Your task to perform on an android device: Toggle the flashlight Image 0: 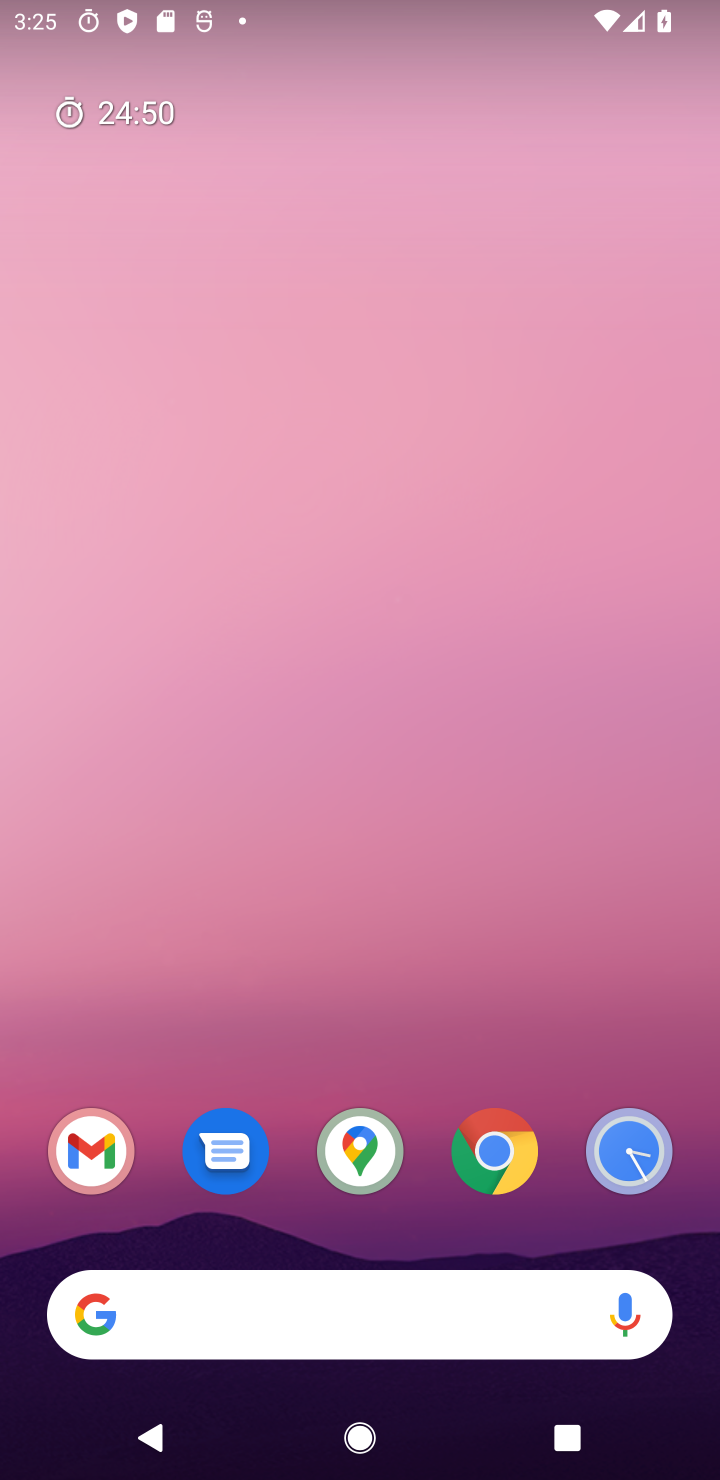
Step 0: press home button
Your task to perform on an android device: Toggle the flashlight Image 1: 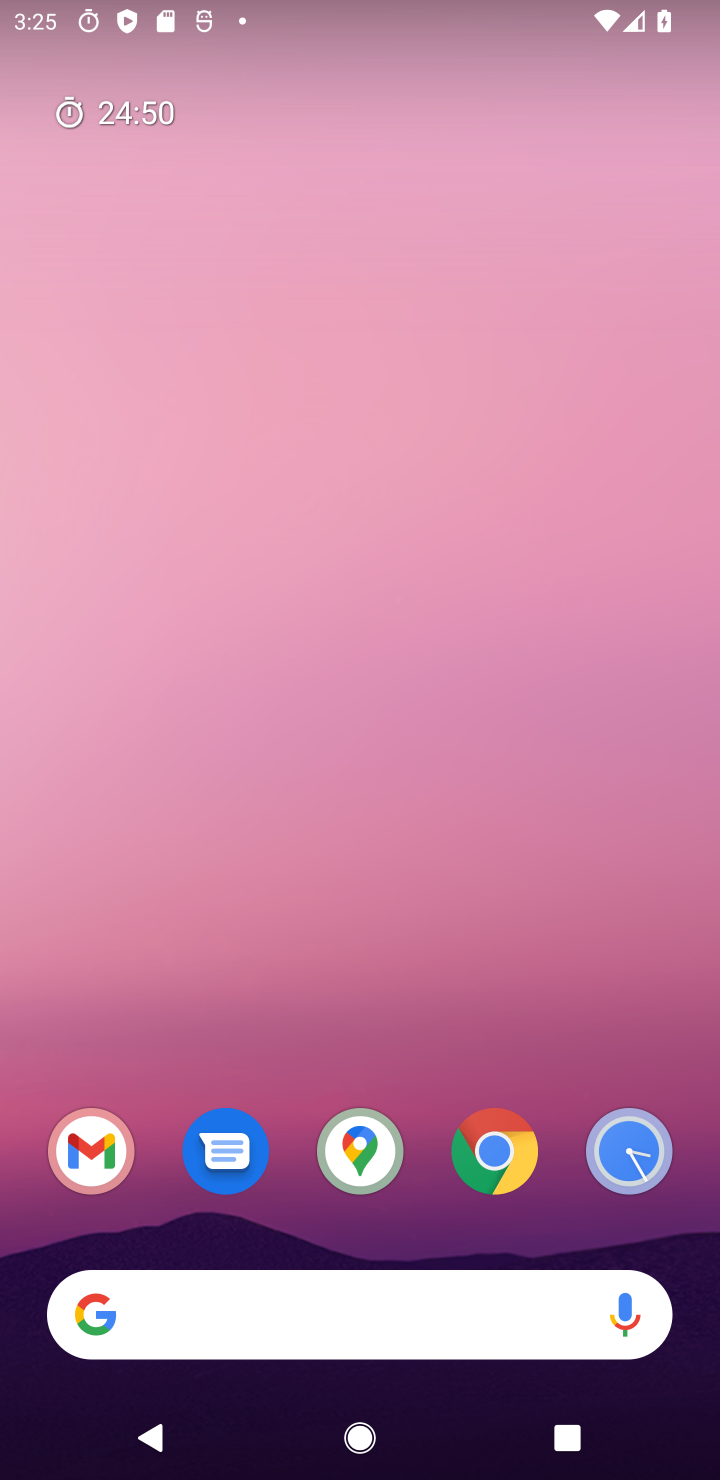
Step 1: task complete